Your task to perform on an android device: Go to Amazon Image 0: 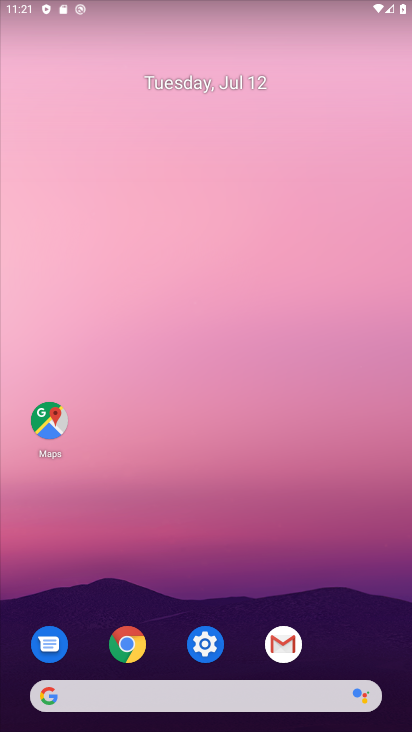
Step 0: click (135, 656)
Your task to perform on an android device: Go to Amazon Image 1: 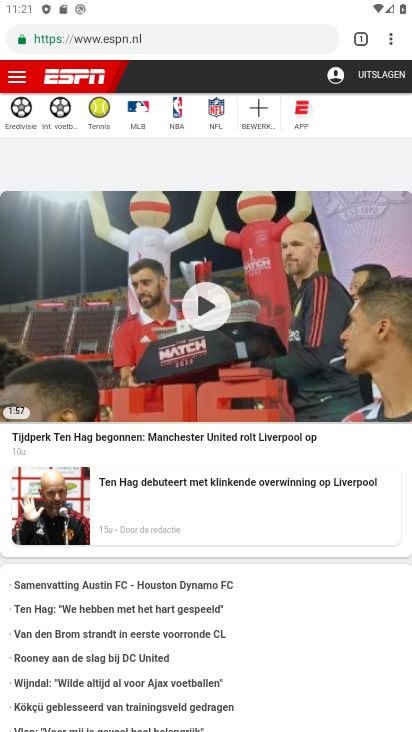
Step 1: click (385, 38)
Your task to perform on an android device: Go to Amazon Image 2: 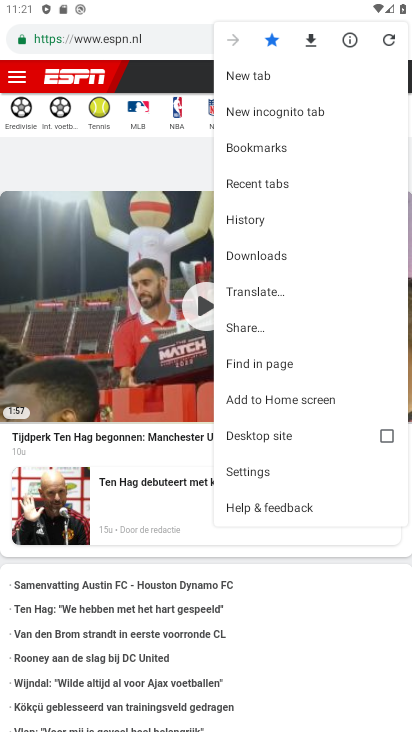
Step 2: click (266, 77)
Your task to perform on an android device: Go to Amazon Image 3: 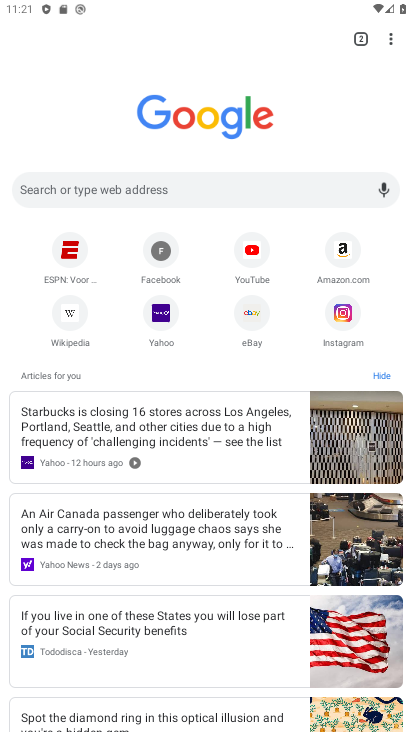
Step 3: click (334, 252)
Your task to perform on an android device: Go to Amazon Image 4: 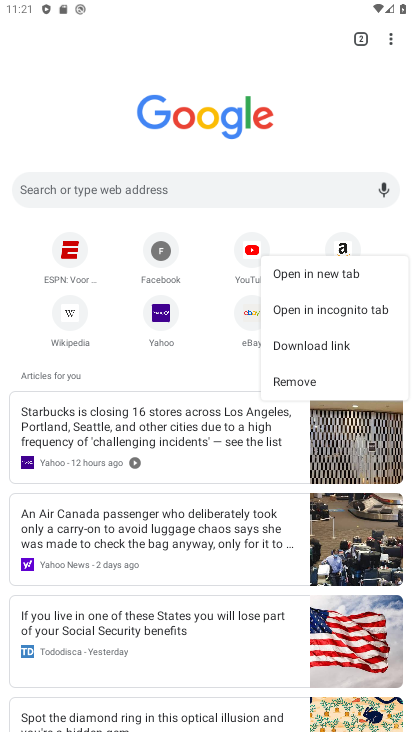
Step 4: click (345, 246)
Your task to perform on an android device: Go to Amazon Image 5: 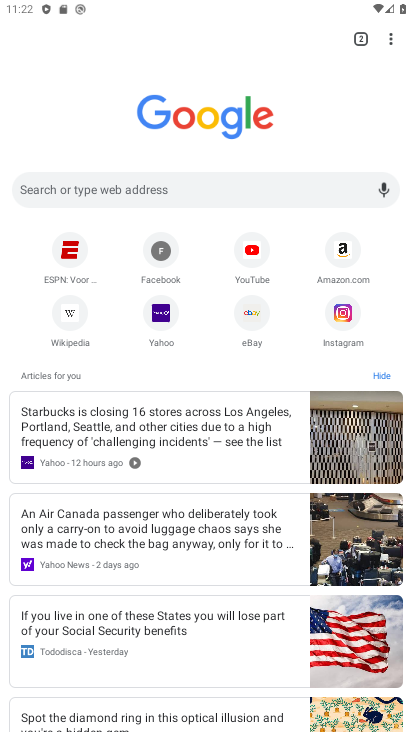
Step 5: click (347, 248)
Your task to perform on an android device: Go to Amazon Image 6: 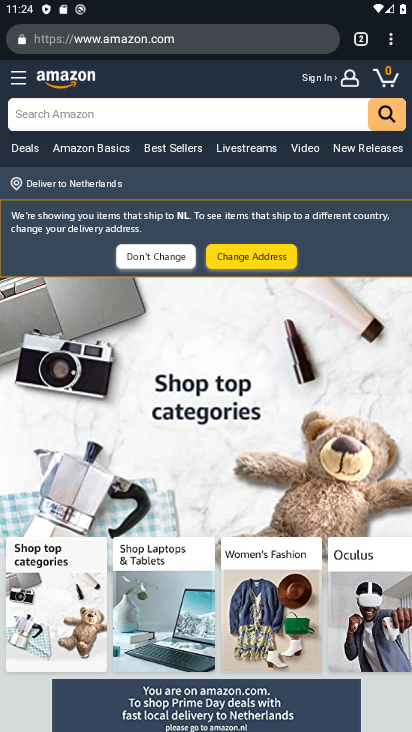
Step 6: task complete